Your task to perform on an android device: Show me popular videos on Youtube Image 0: 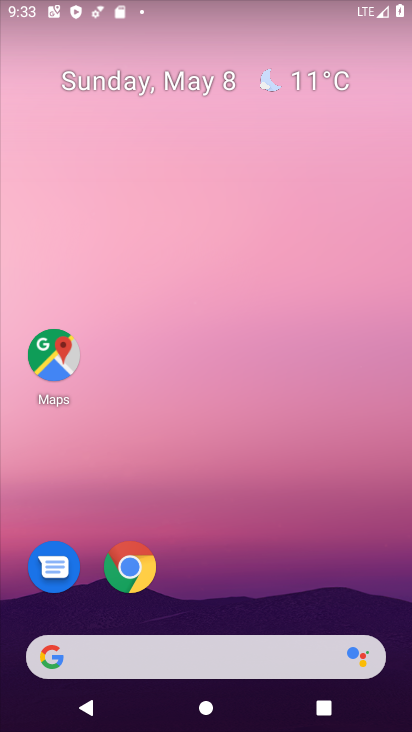
Step 0: drag from (243, 540) to (258, 10)
Your task to perform on an android device: Show me popular videos on Youtube Image 1: 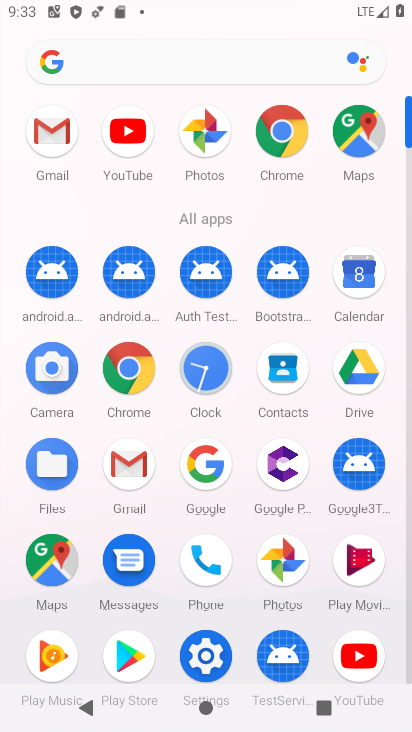
Step 1: click (115, 123)
Your task to perform on an android device: Show me popular videos on Youtube Image 2: 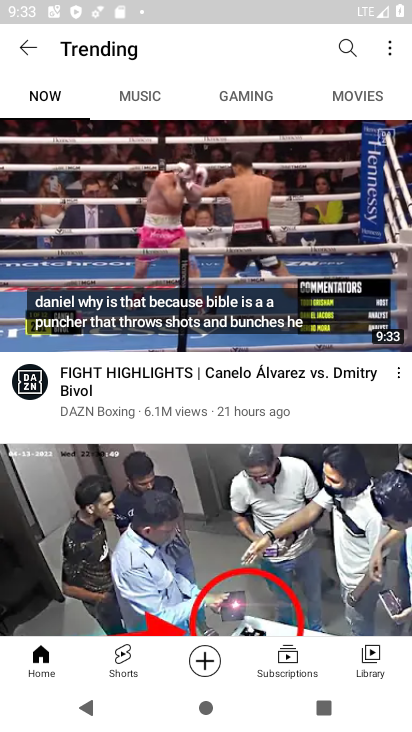
Step 2: task complete